Your task to perform on an android device: Do I have any events tomorrow? Image 0: 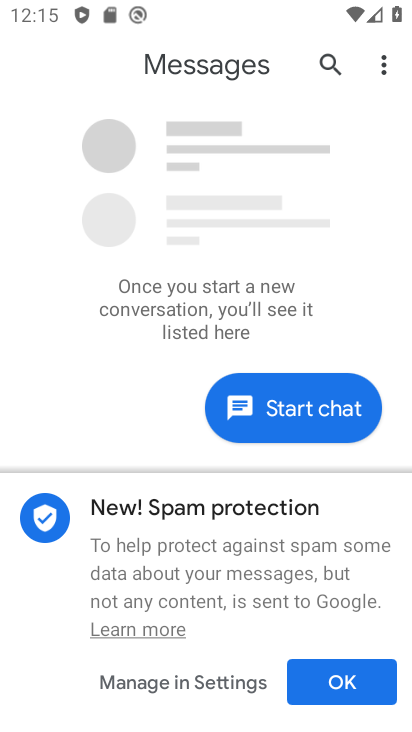
Step 0: press home button
Your task to perform on an android device: Do I have any events tomorrow? Image 1: 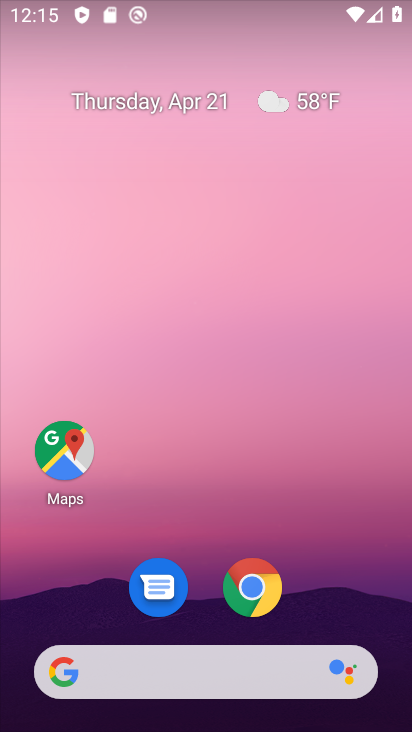
Step 1: drag from (199, 612) to (256, 10)
Your task to perform on an android device: Do I have any events tomorrow? Image 2: 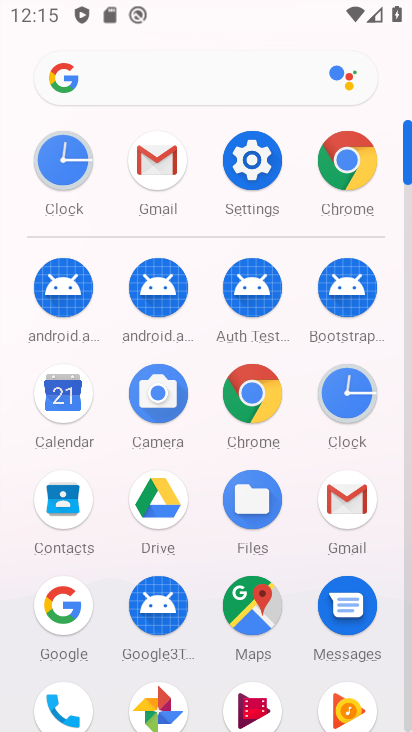
Step 2: click (62, 401)
Your task to perform on an android device: Do I have any events tomorrow? Image 3: 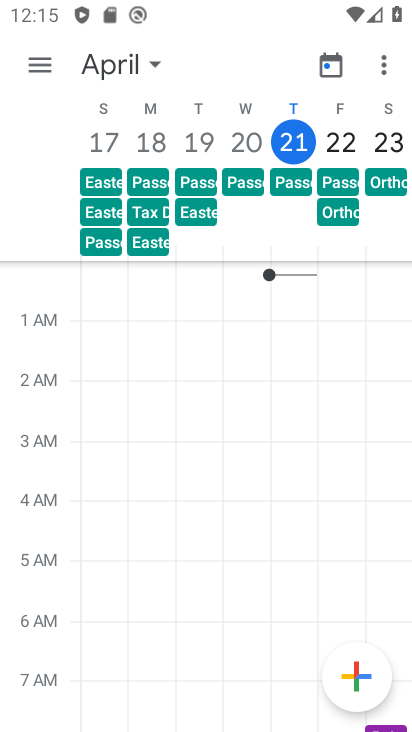
Step 3: click (39, 56)
Your task to perform on an android device: Do I have any events tomorrow? Image 4: 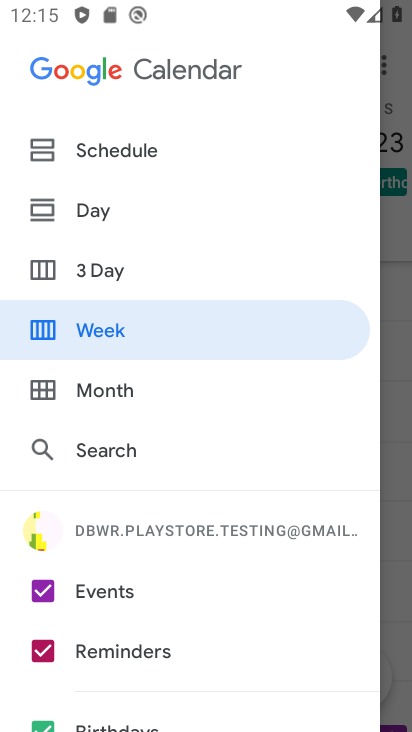
Step 4: click (114, 266)
Your task to perform on an android device: Do I have any events tomorrow? Image 5: 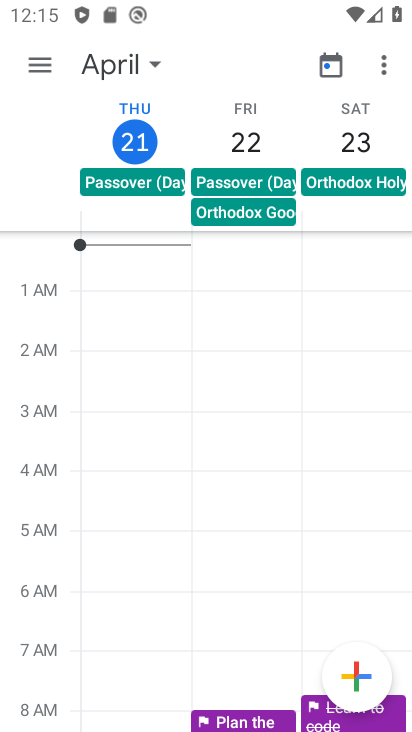
Step 5: click (33, 57)
Your task to perform on an android device: Do I have any events tomorrow? Image 6: 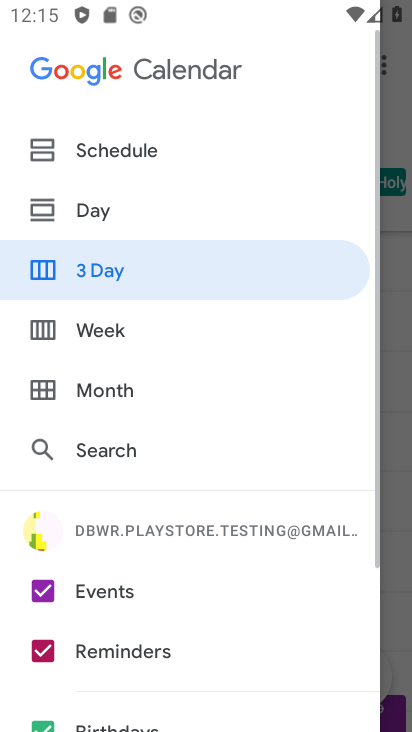
Step 6: drag from (129, 547) to (206, 282)
Your task to perform on an android device: Do I have any events tomorrow? Image 7: 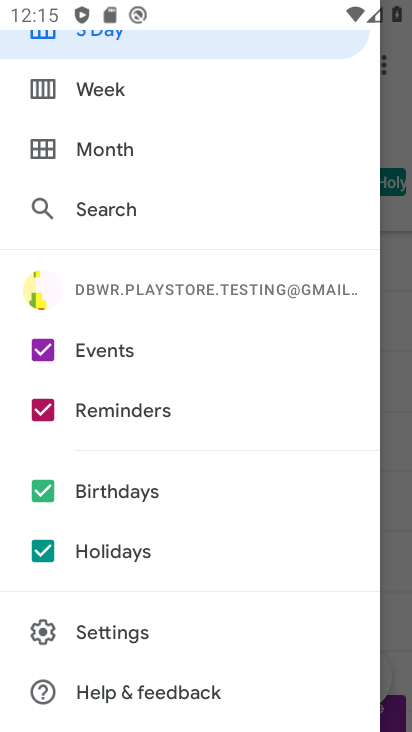
Step 7: click (43, 414)
Your task to perform on an android device: Do I have any events tomorrow? Image 8: 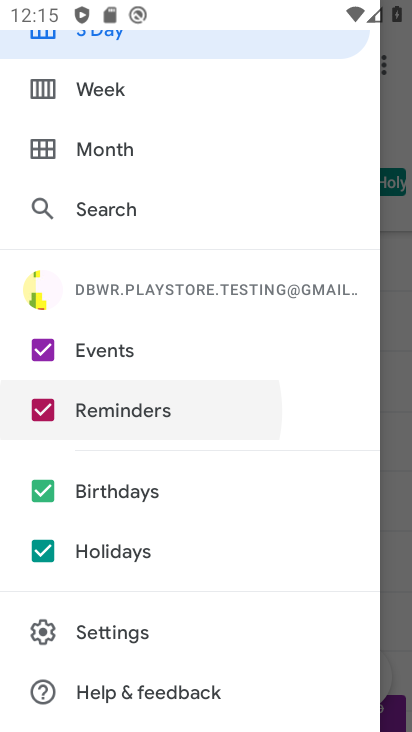
Step 8: click (45, 487)
Your task to perform on an android device: Do I have any events tomorrow? Image 9: 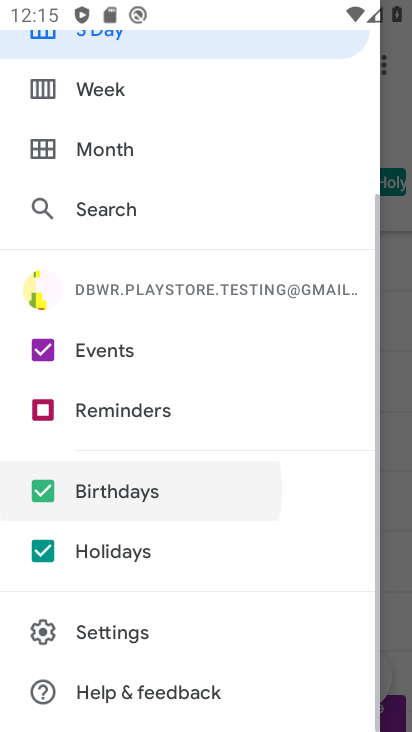
Step 9: click (39, 555)
Your task to perform on an android device: Do I have any events tomorrow? Image 10: 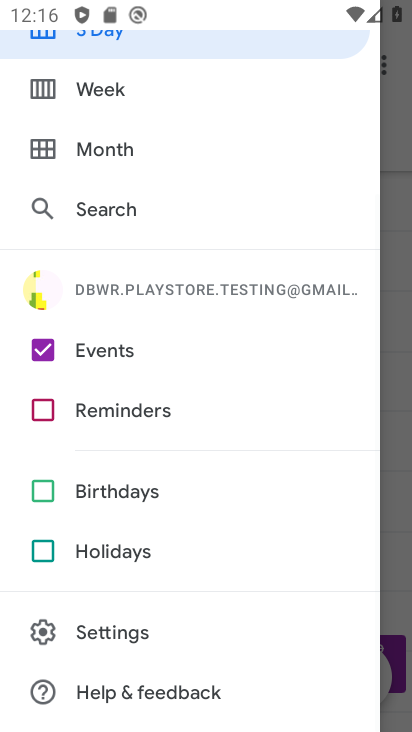
Step 10: click (127, 38)
Your task to perform on an android device: Do I have any events tomorrow? Image 11: 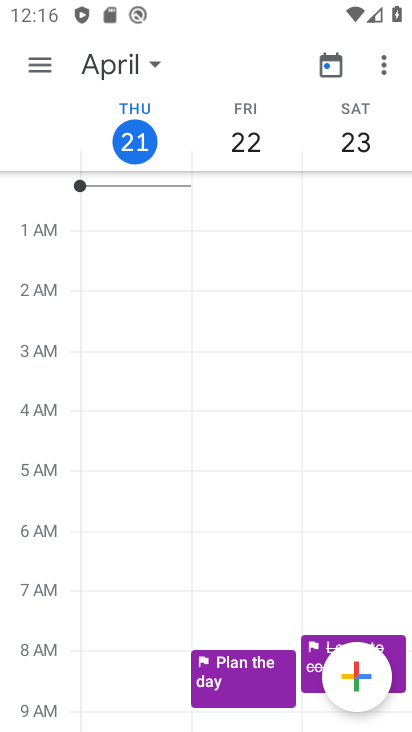
Step 11: task complete